Your task to perform on an android device: Search for Italian restaurants on Maps Image 0: 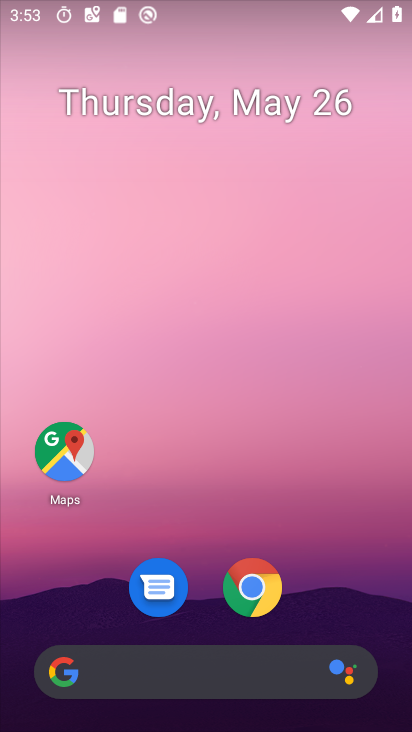
Step 0: drag from (215, 677) to (117, 313)
Your task to perform on an android device: Search for Italian restaurants on Maps Image 1: 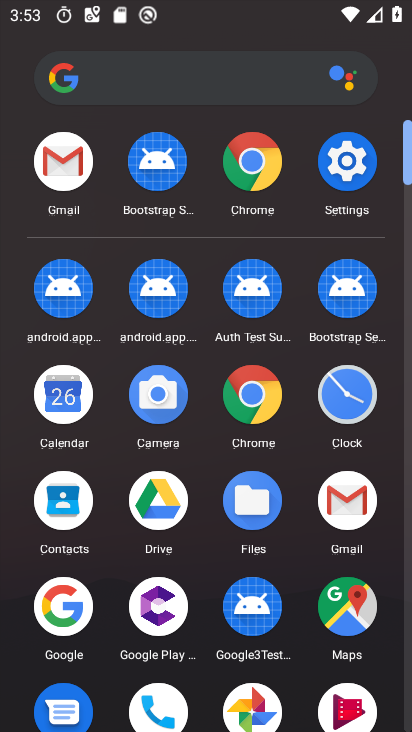
Step 1: click (348, 640)
Your task to perform on an android device: Search for Italian restaurants on Maps Image 2: 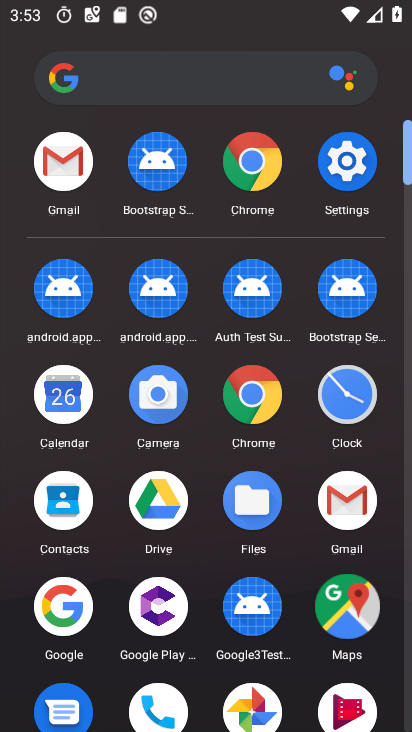
Step 2: click (355, 621)
Your task to perform on an android device: Search for Italian restaurants on Maps Image 3: 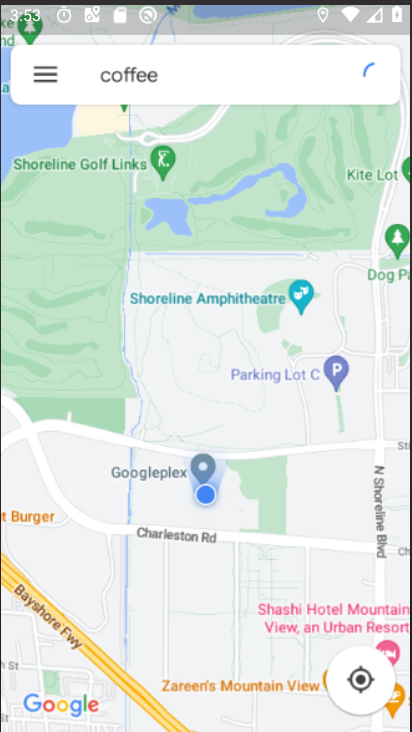
Step 3: click (348, 621)
Your task to perform on an android device: Search for Italian restaurants on Maps Image 4: 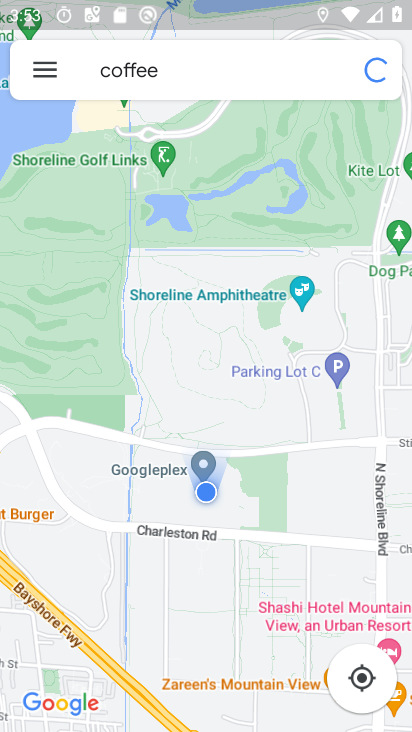
Step 4: click (343, 612)
Your task to perform on an android device: Search for Italian restaurants on Maps Image 5: 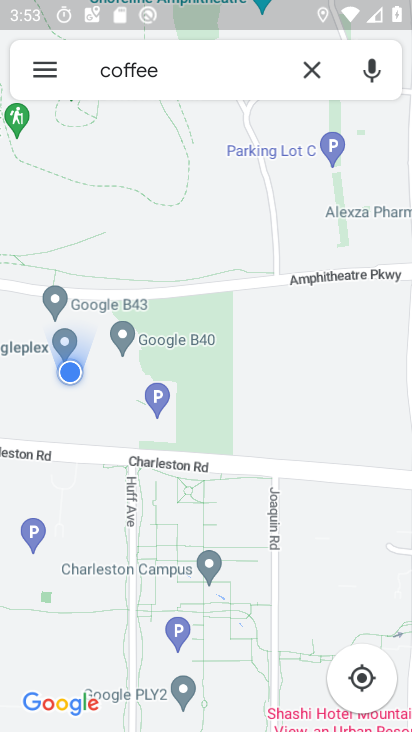
Step 5: click (169, 72)
Your task to perform on an android device: Search for Italian restaurants on Maps Image 6: 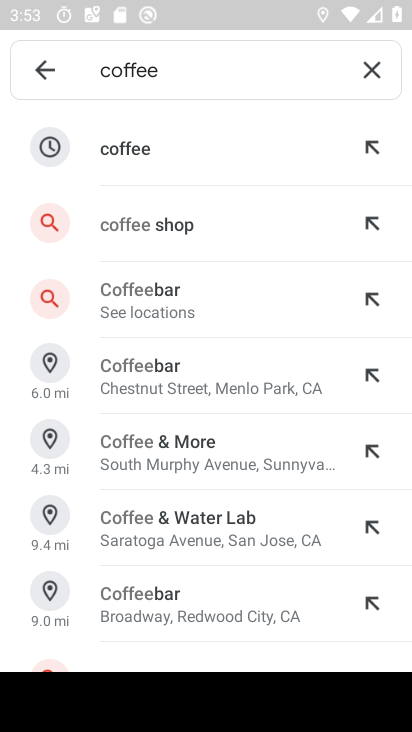
Step 6: click (369, 71)
Your task to perform on an android device: Search for Italian restaurants on Maps Image 7: 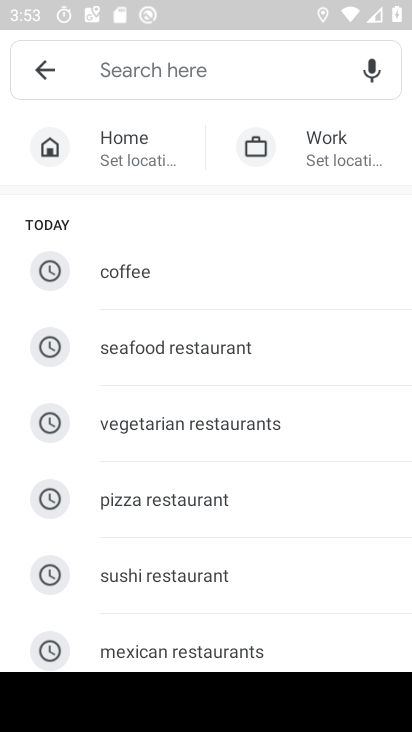
Step 7: type "italian restaurants"
Your task to perform on an android device: Search for Italian restaurants on Maps Image 8: 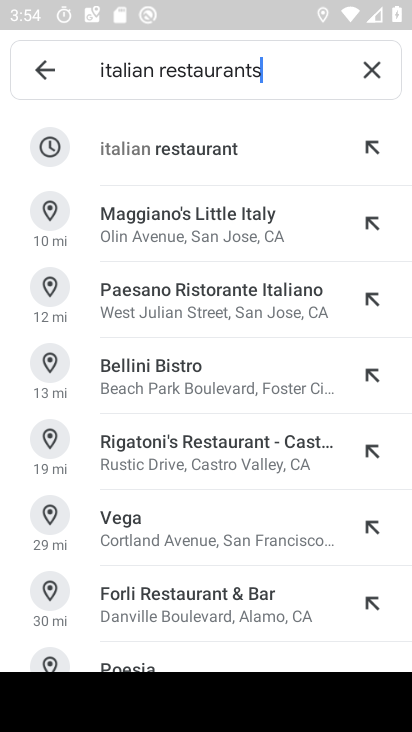
Step 8: task complete